Your task to perform on an android device: turn off wifi Image 0: 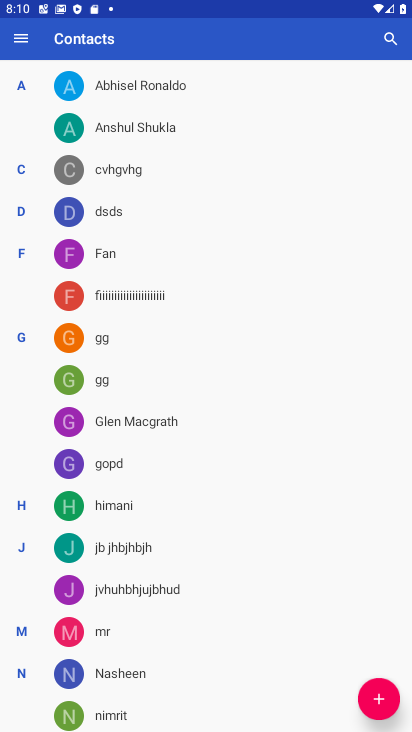
Step 0: press home button
Your task to perform on an android device: turn off wifi Image 1: 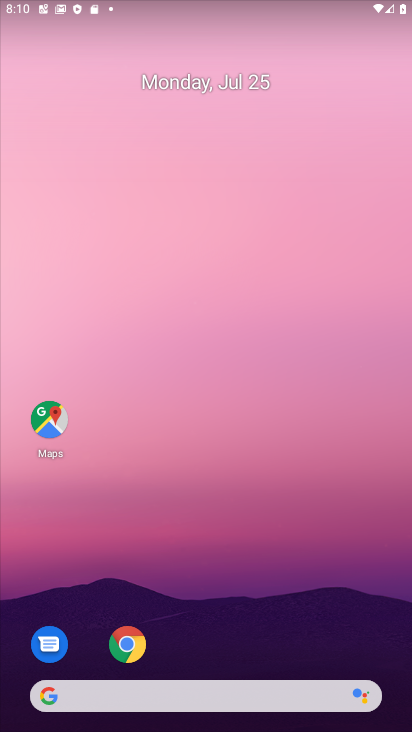
Step 1: drag from (227, 617) to (213, 154)
Your task to perform on an android device: turn off wifi Image 2: 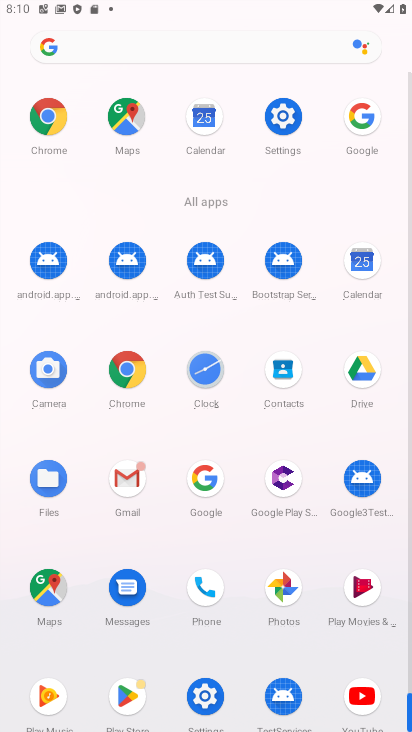
Step 2: click (287, 131)
Your task to perform on an android device: turn off wifi Image 3: 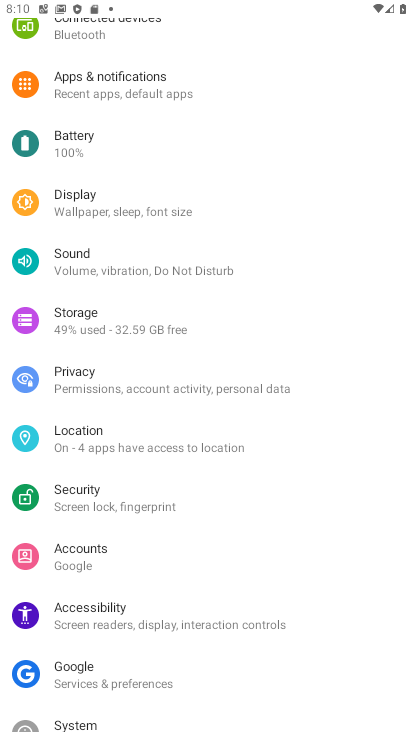
Step 3: drag from (274, 77) to (216, 635)
Your task to perform on an android device: turn off wifi Image 4: 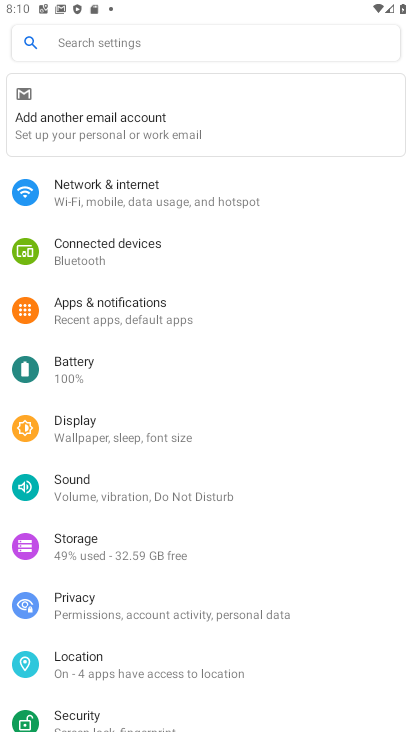
Step 4: click (135, 203)
Your task to perform on an android device: turn off wifi Image 5: 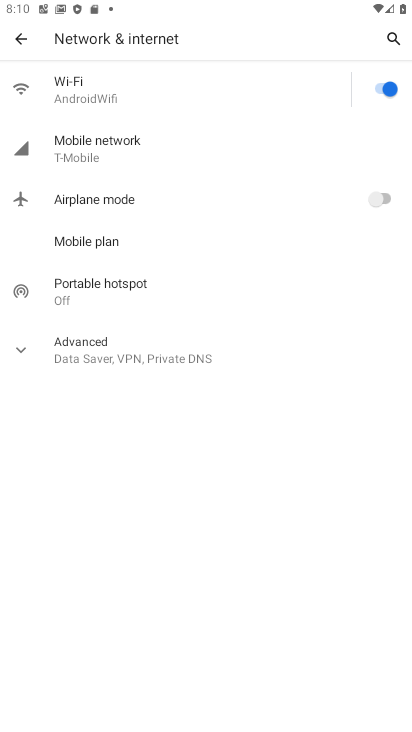
Step 5: click (376, 95)
Your task to perform on an android device: turn off wifi Image 6: 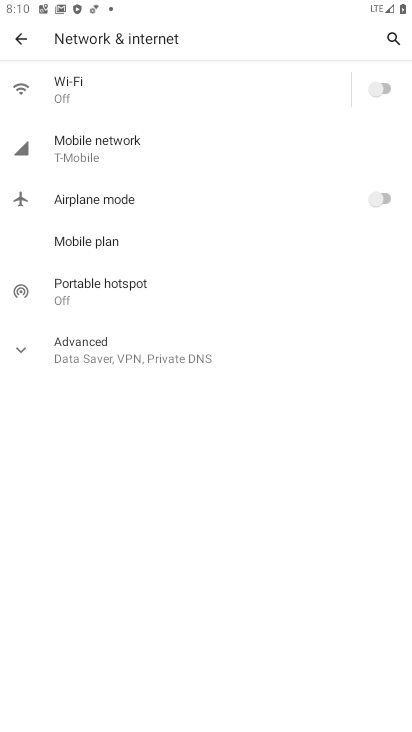
Step 6: task complete